Your task to perform on an android device: clear history in the chrome app Image 0: 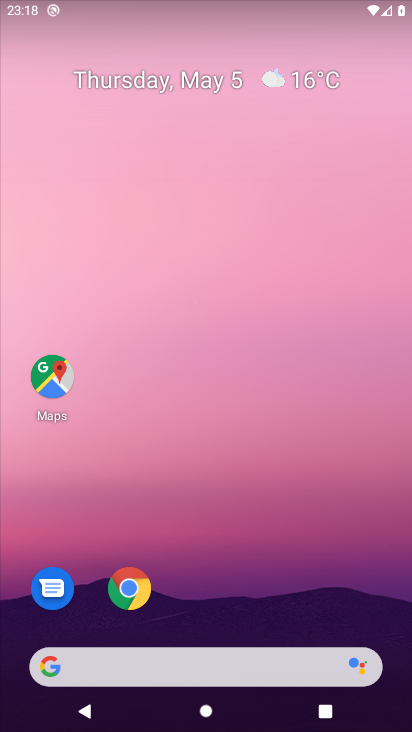
Step 0: click (139, 598)
Your task to perform on an android device: clear history in the chrome app Image 1: 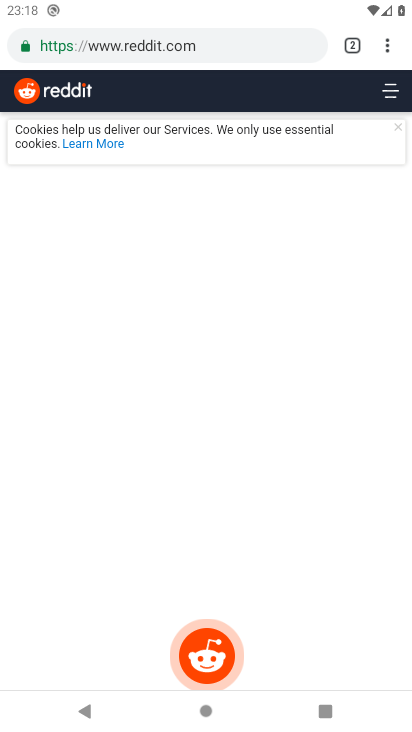
Step 1: drag from (387, 57) to (254, 258)
Your task to perform on an android device: clear history in the chrome app Image 2: 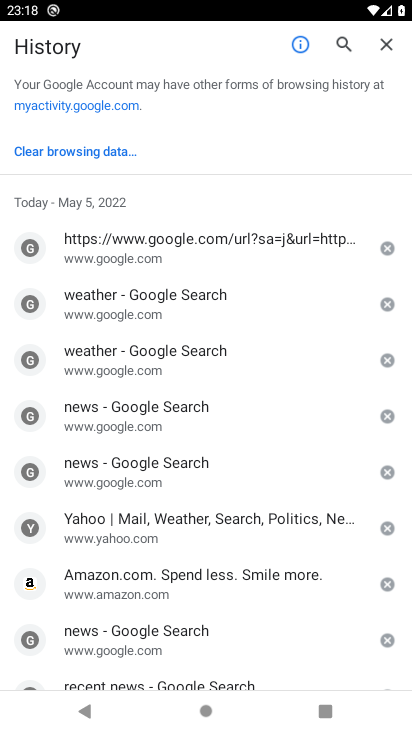
Step 2: click (111, 156)
Your task to perform on an android device: clear history in the chrome app Image 3: 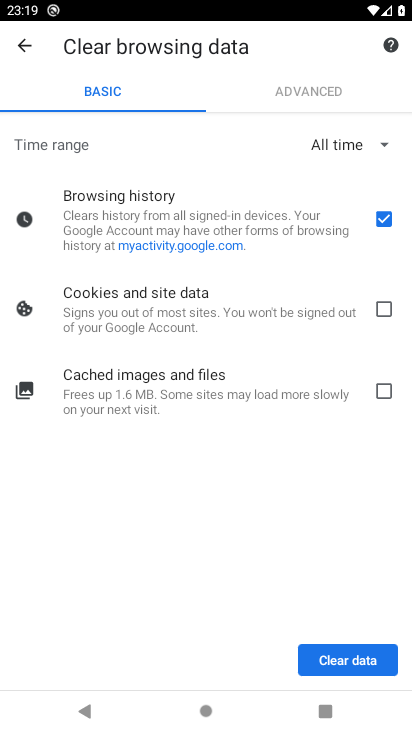
Step 3: click (349, 664)
Your task to perform on an android device: clear history in the chrome app Image 4: 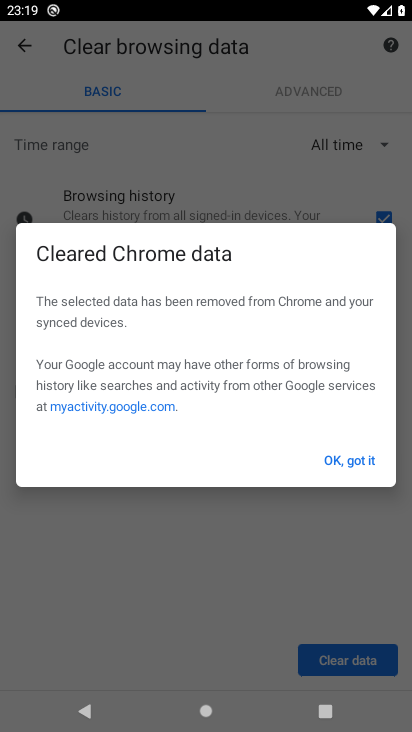
Step 4: click (362, 458)
Your task to perform on an android device: clear history in the chrome app Image 5: 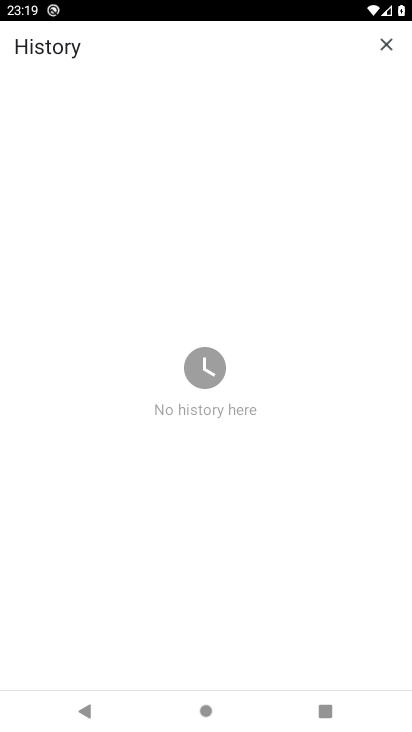
Step 5: task complete